Your task to perform on an android device: turn on translation in the chrome app Image 0: 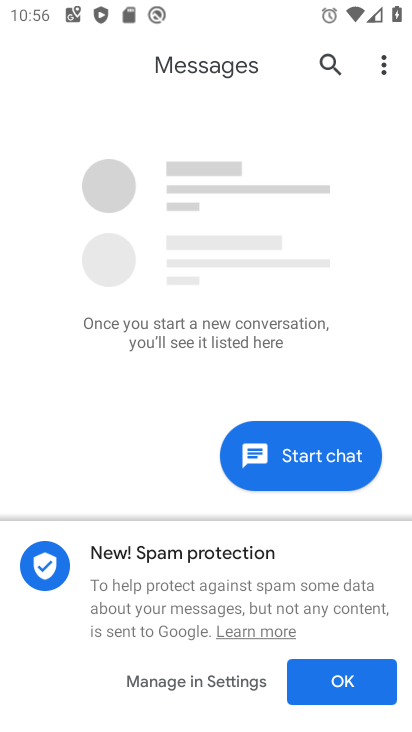
Step 0: press home button
Your task to perform on an android device: turn on translation in the chrome app Image 1: 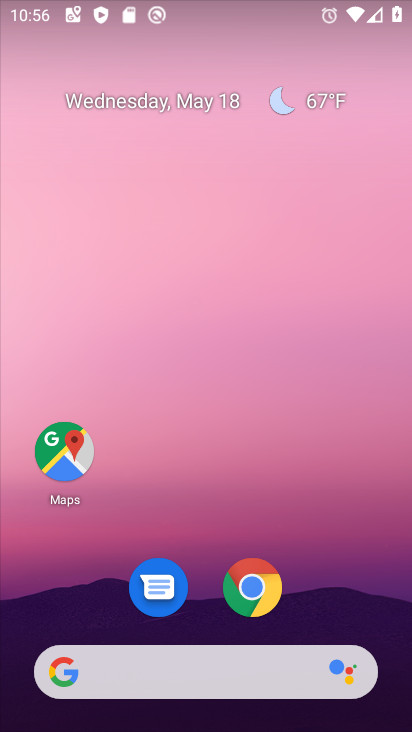
Step 1: drag from (324, 578) to (260, 171)
Your task to perform on an android device: turn on translation in the chrome app Image 2: 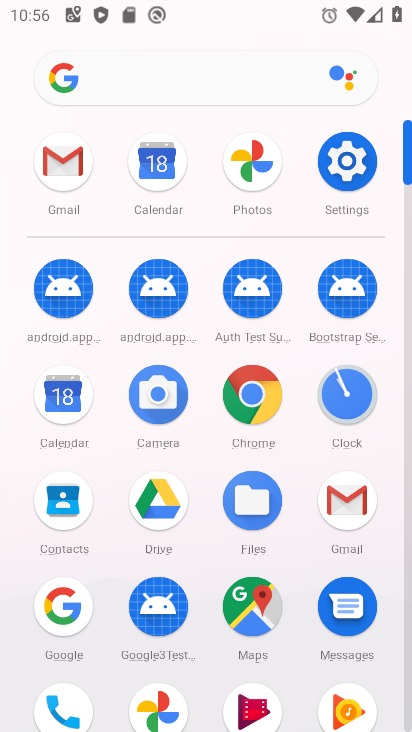
Step 2: click (261, 394)
Your task to perform on an android device: turn on translation in the chrome app Image 3: 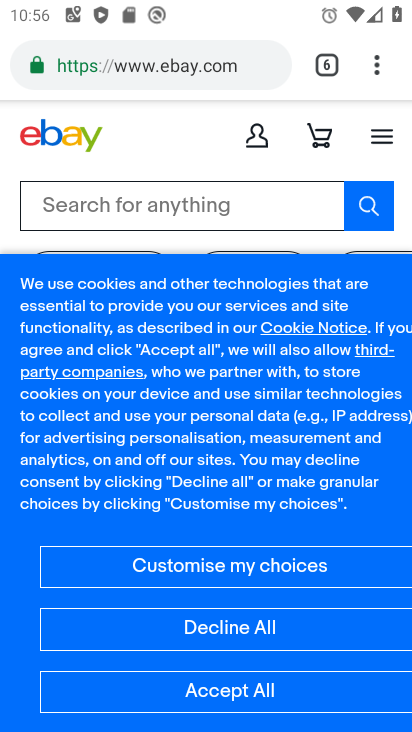
Step 3: click (367, 60)
Your task to perform on an android device: turn on translation in the chrome app Image 4: 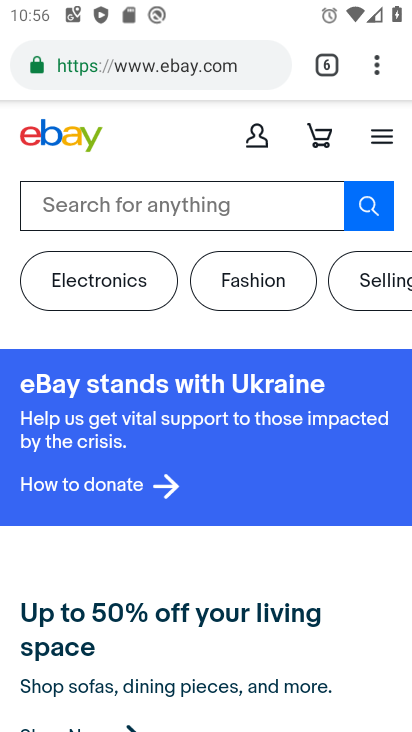
Step 4: click (373, 52)
Your task to perform on an android device: turn on translation in the chrome app Image 5: 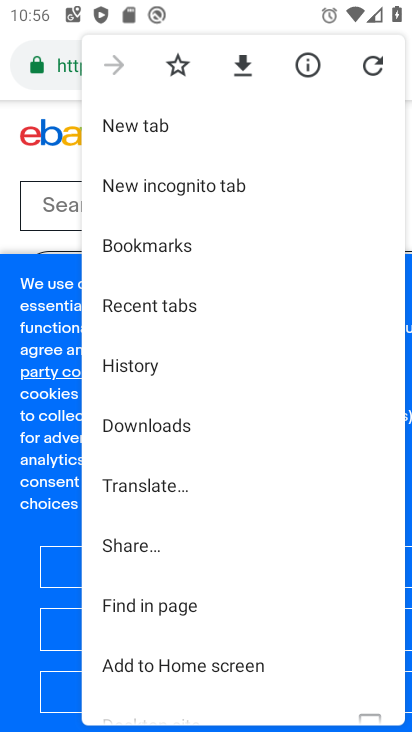
Step 5: click (129, 476)
Your task to perform on an android device: turn on translation in the chrome app Image 6: 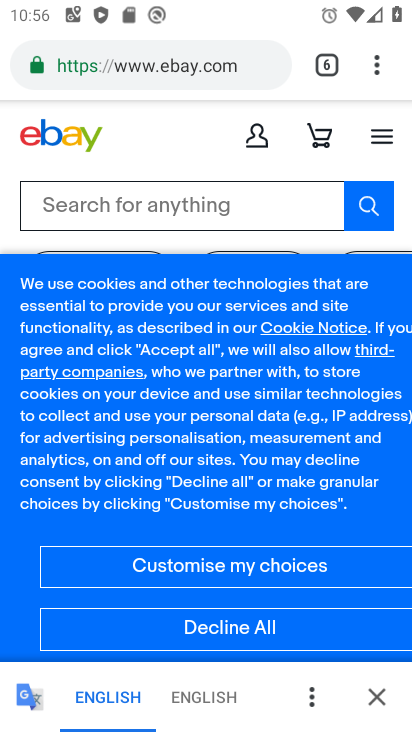
Step 6: click (313, 706)
Your task to perform on an android device: turn on translation in the chrome app Image 7: 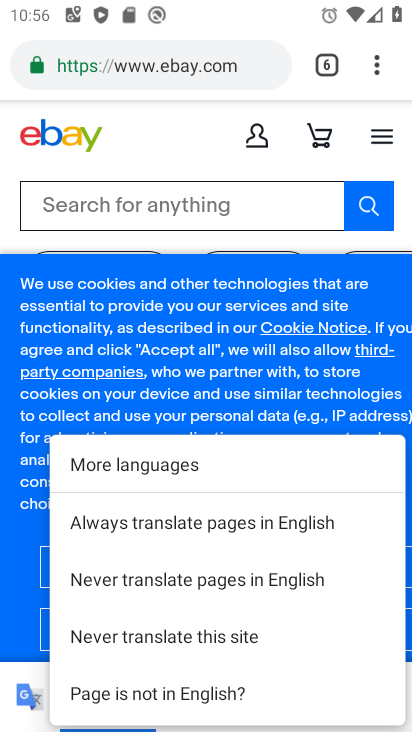
Step 7: click (244, 389)
Your task to perform on an android device: turn on translation in the chrome app Image 8: 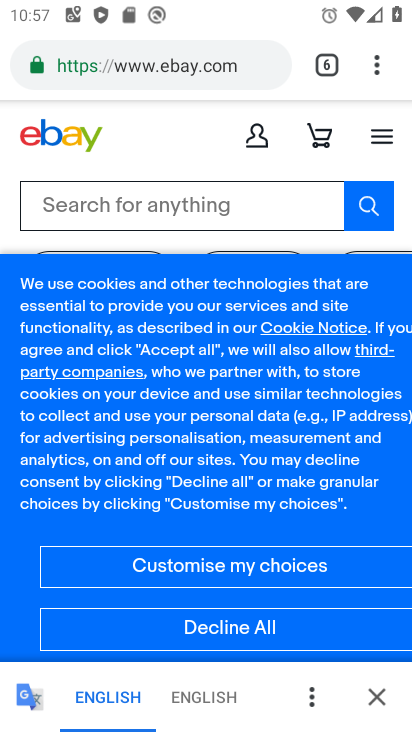
Step 8: click (198, 709)
Your task to perform on an android device: turn on translation in the chrome app Image 9: 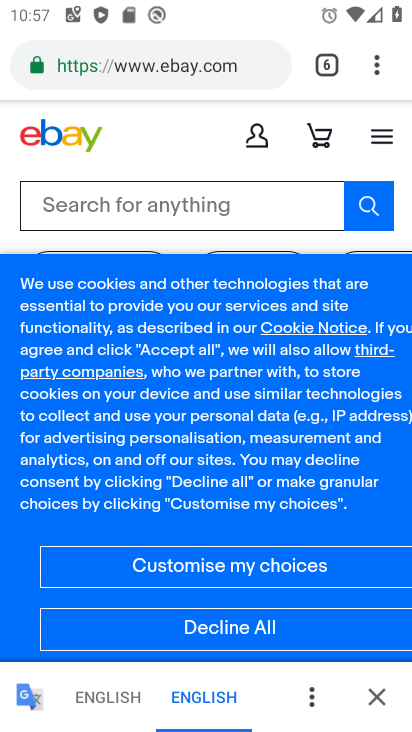
Step 9: task complete